Your task to perform on an android device: What's on my calendar tomorrow? Image 0: 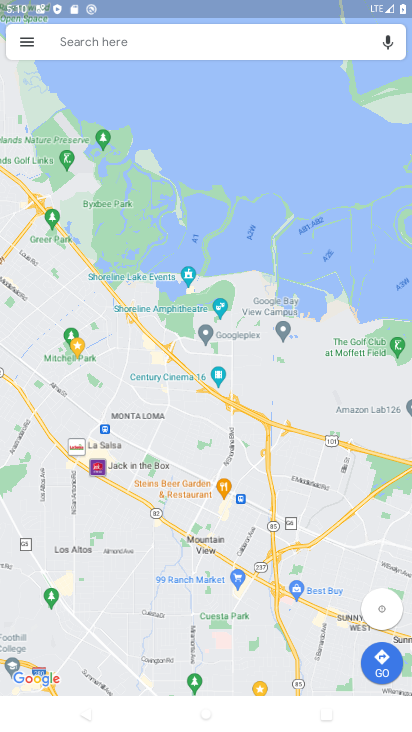
Step 0: press back button
Your task to perform on an android device: What's on my calendar tomorrow? Image 1: 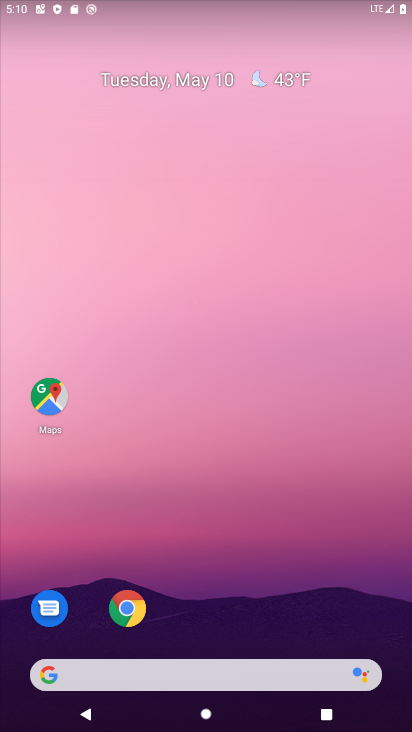
Step 1: drag from (178, 583) to (311, 112)
Your task to perform on an android device: What's on my calendar tomorrow? Image 2: 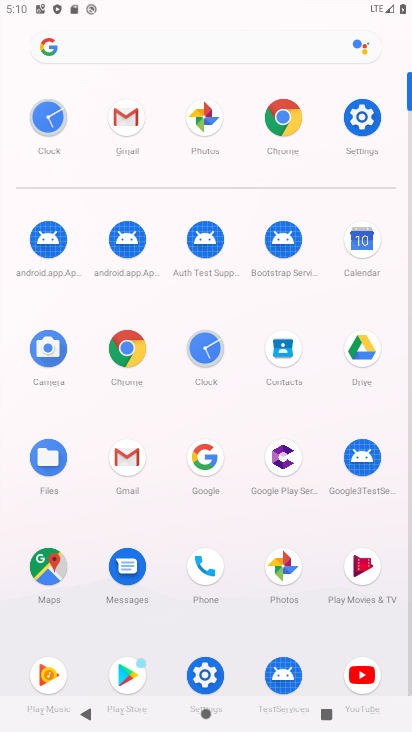
Step 2: click (360, 245)
Your task to perform on an android device: What's on my calendar tomorrow? Image 3: 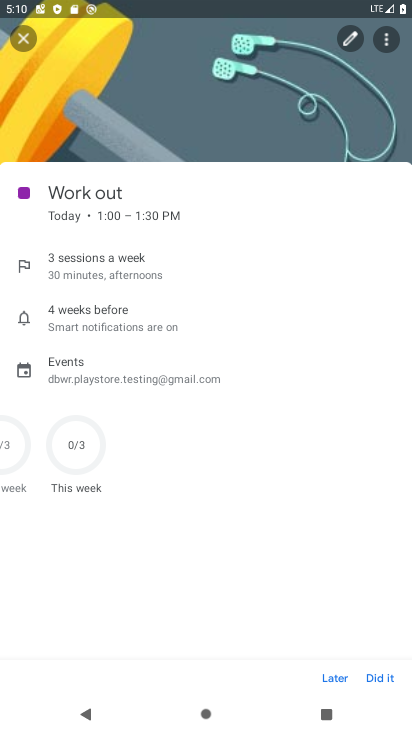
Step 3: click (22, 32)
Your task to perform on an android device: What's on my calendar tomorrow? Image 4: 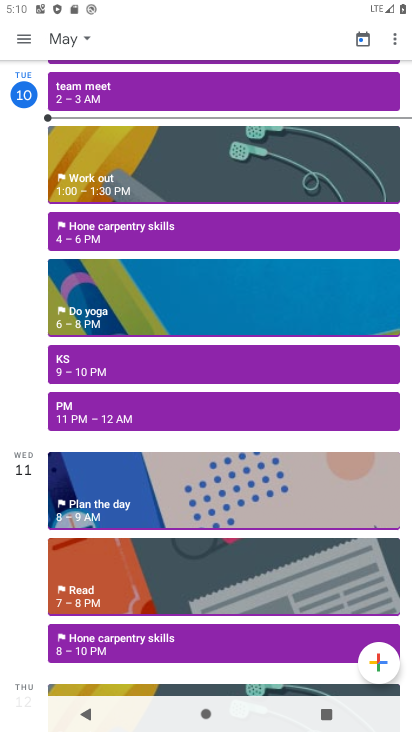
Step 4: drag from (116, 600) to (234, 250)
Your task to perform on an android device: What's on my calendar tomorrow? Image 5: 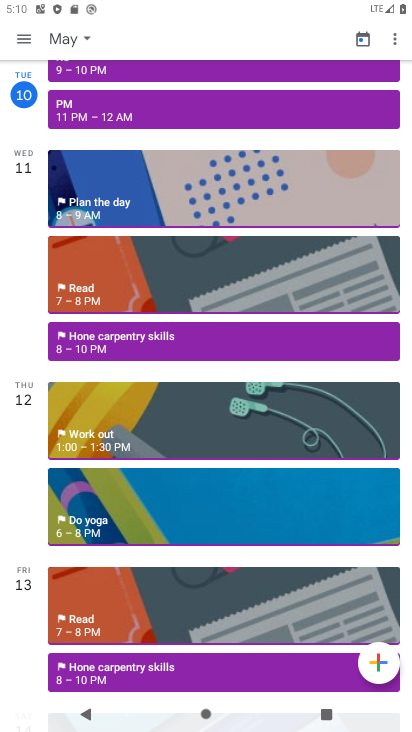
Step 5: click (106, 512)
Your task to perform on an android device: What's on my calendar tomorrow? Image 6: 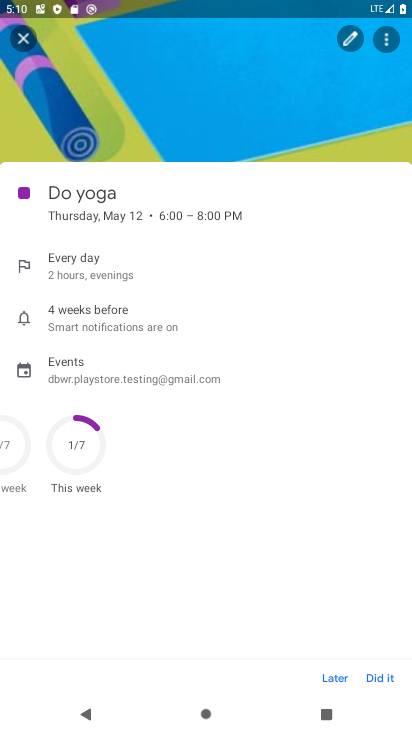
Step 6: click (20, 41)
Your task to perform on an android device: What's on my calendar tomorrow? Image 7: 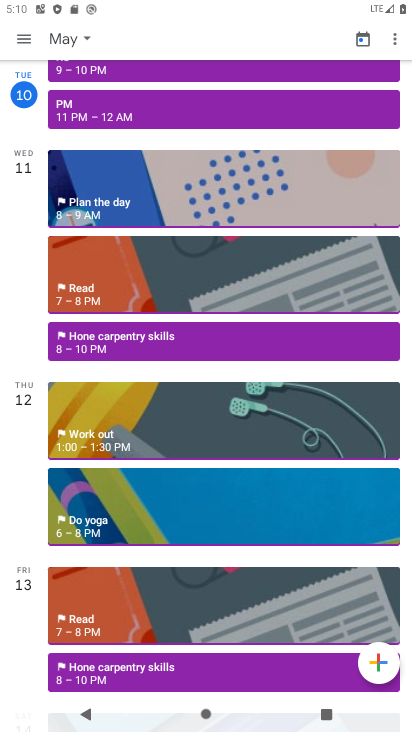
Step 7: drag from (201, 233) to (168, 526)
Your task to perform on an android device: What's on my calendar tomorrow? Image 8: 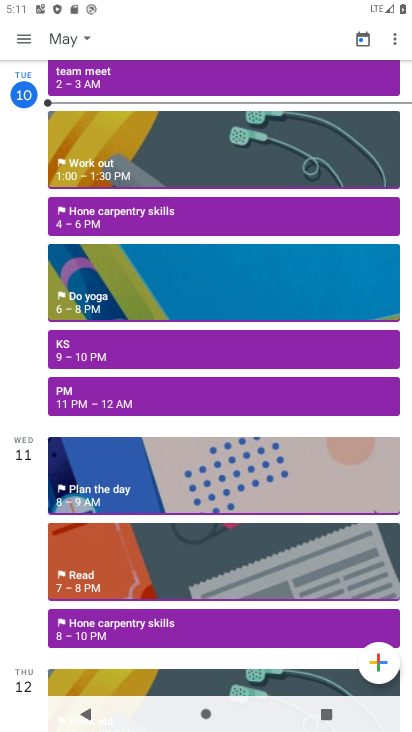
Step 8: click (136, 486)
Your task to perform on an android device: What's on my calendar tomorrow? Image 9: 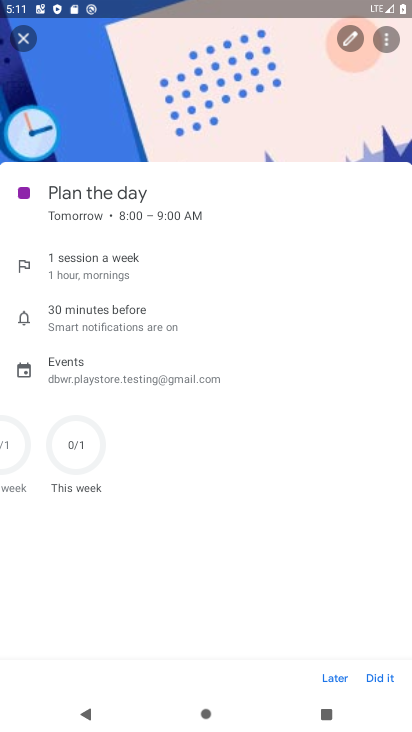
Step 9: task complete